Your task to perform on an android device: toggle notifications settings in the gmail app Image 0: 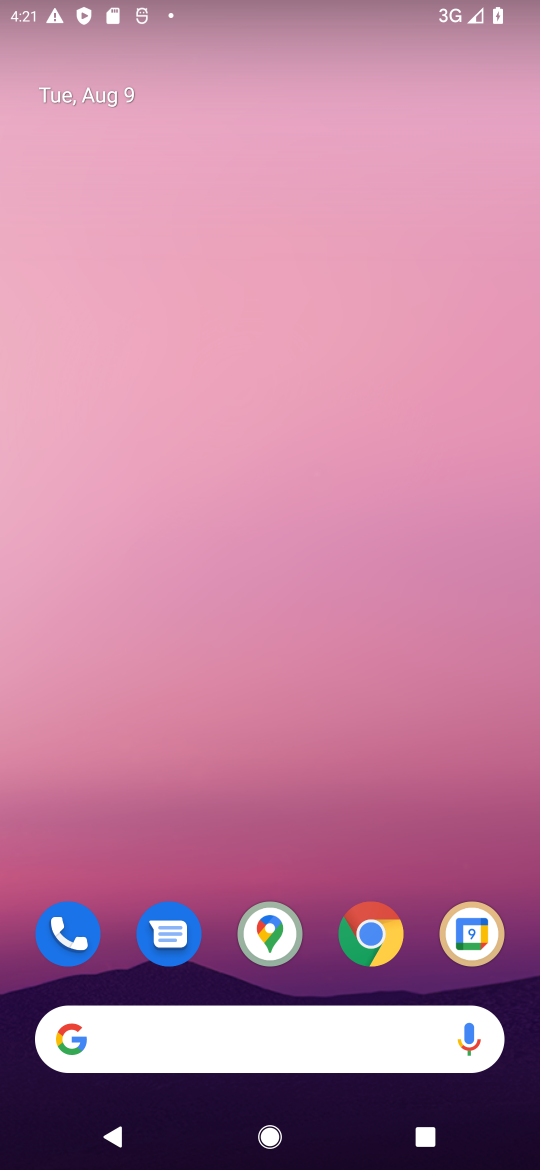
Step 0: drag from (323, 982) to (329, 138)
Your task to perform on an android device: toggle notifications settings in the gmail app Image 1: 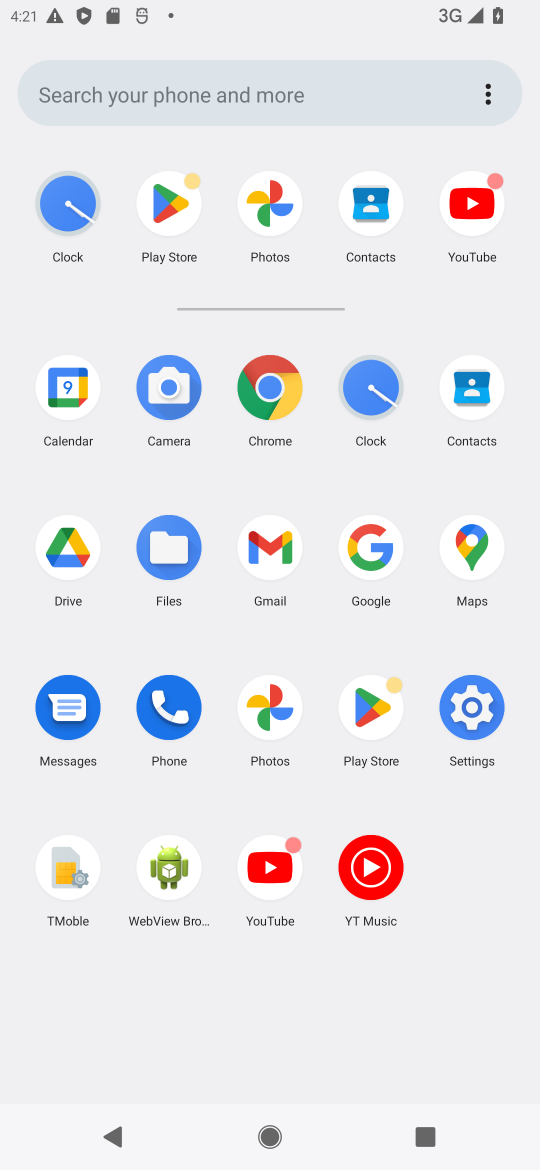
Step 1: click (460, 704)
Your task to perform on an android device: toggle notifications settings in the gmail app Image 2: 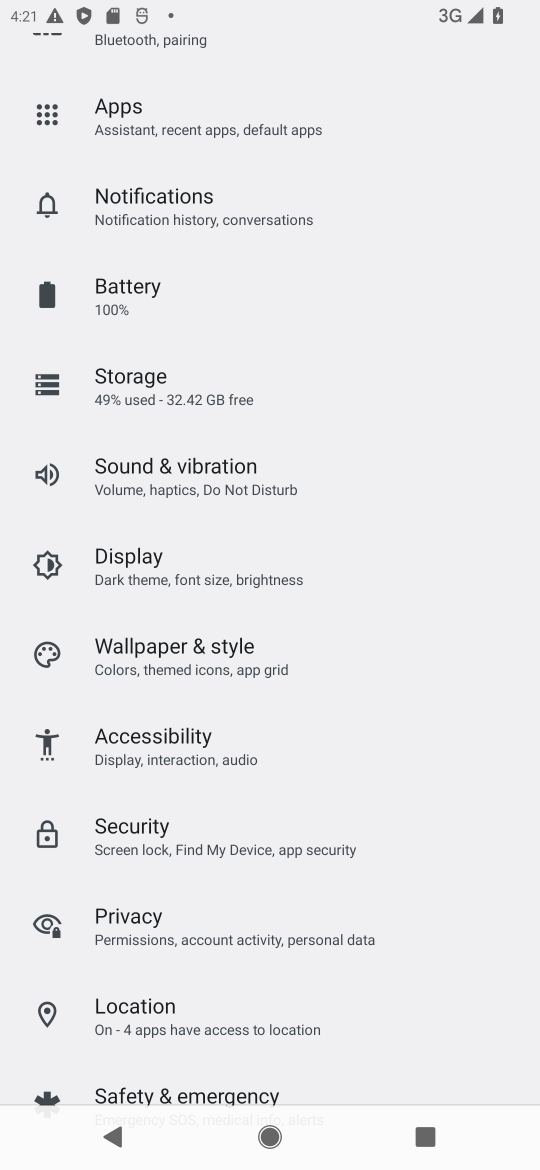
Step 2: click (225, 221)
Your task to perform on an android device: toggle notifications settings in the gmail app Image 3: 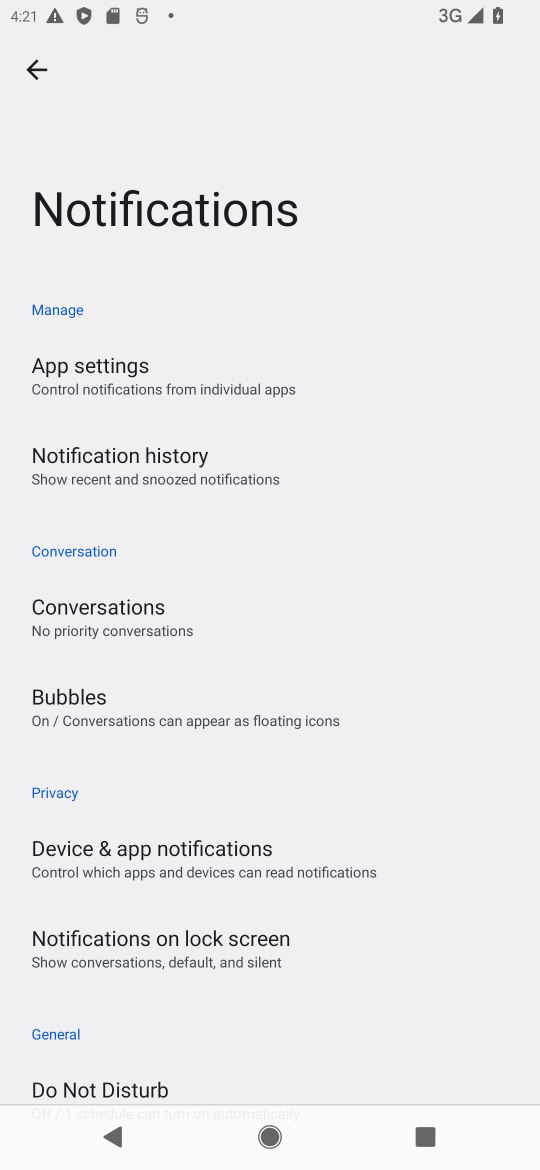
Step 3: task complete